Your task to perform on an android device: turn on translation in the chrome app Image 0: 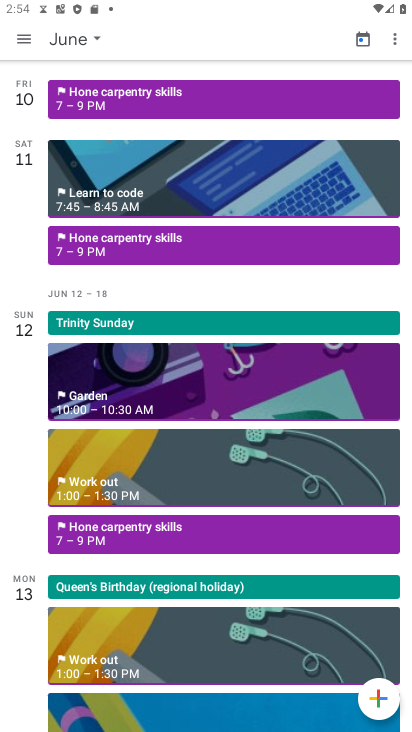
Step 0: press home button
Your task to perform on an android device: turn on translation in the chrome app Image 1: 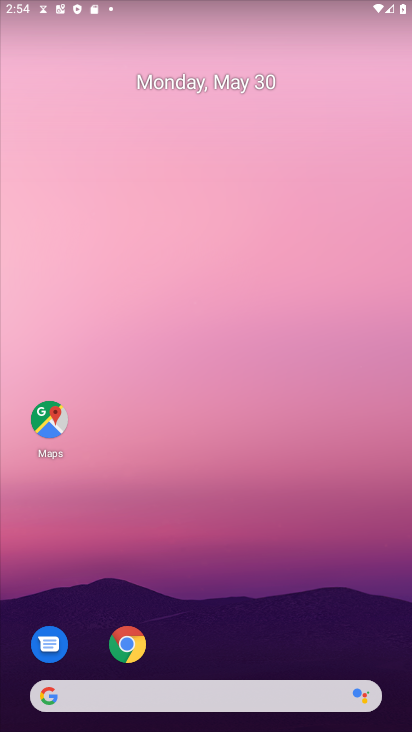
Step 1: click (133, 639)
Your task to perform on an android device: turn on translation in the chrome app Image 2: 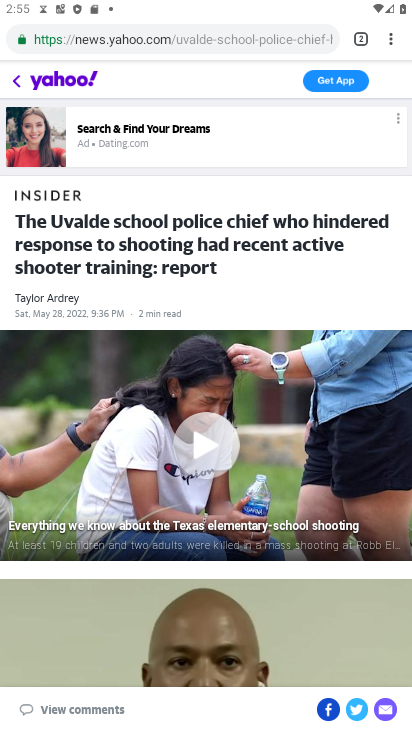
Step 2: click (391, 39)
Your task to perform on an android device: turn on translation in the chrome app Image 3: 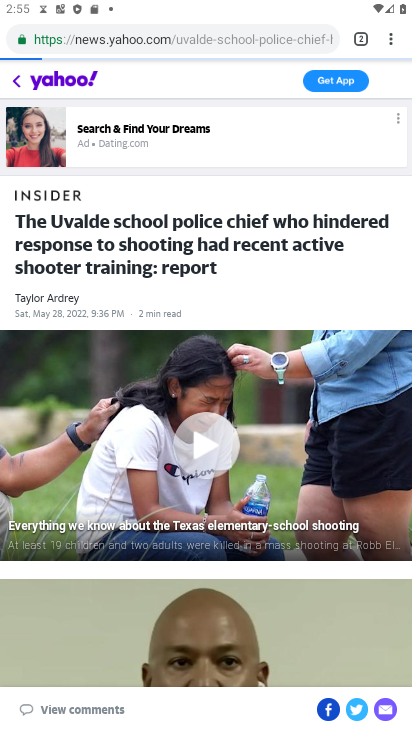
Step 3: drag from (390, 39) to (261, 471)
Your task to perform on an android device: turn on translation in the chrome app Image 4: 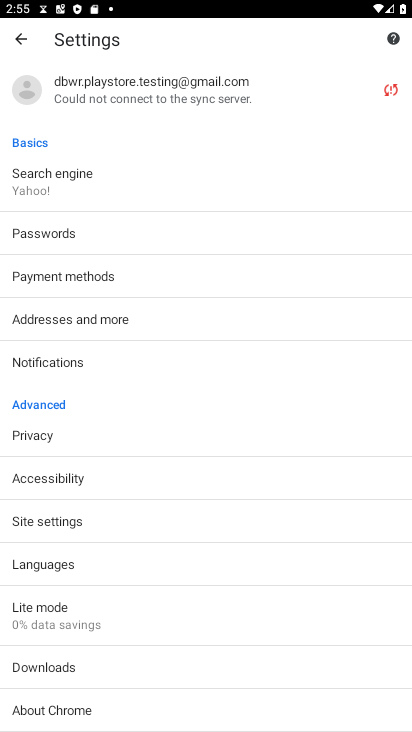
Step 4: click (103, 557)
Your task to perform on an android device: turn on translation in the chrome app Image 5: 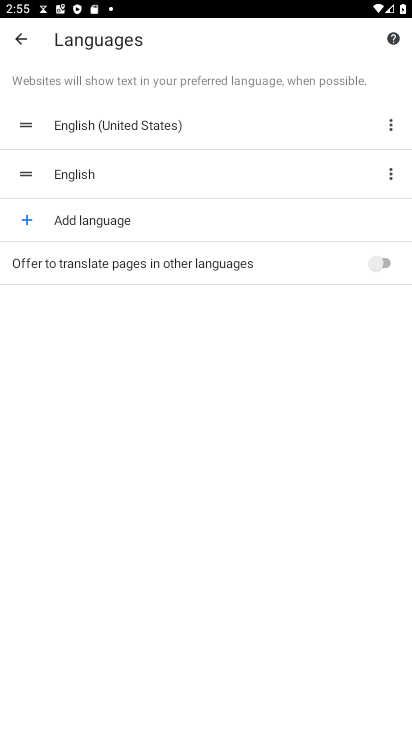
Step 5: click (386, 262)
Your task to perform on an android device: turn on translation in the chrome app Image 6: 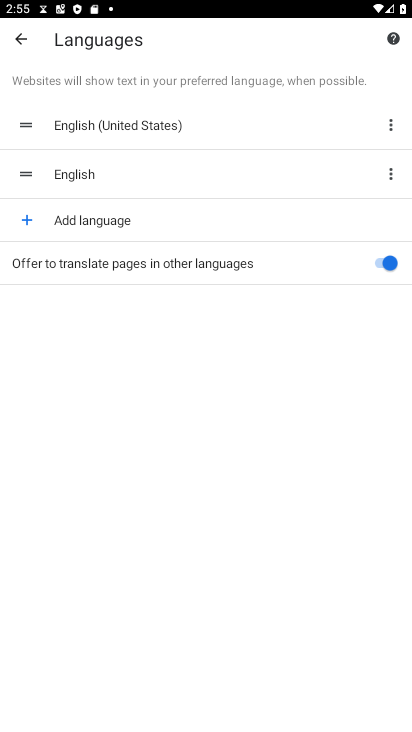
Step 6: task complete